Your task to perform on an android device: Open internet settings Image 0: 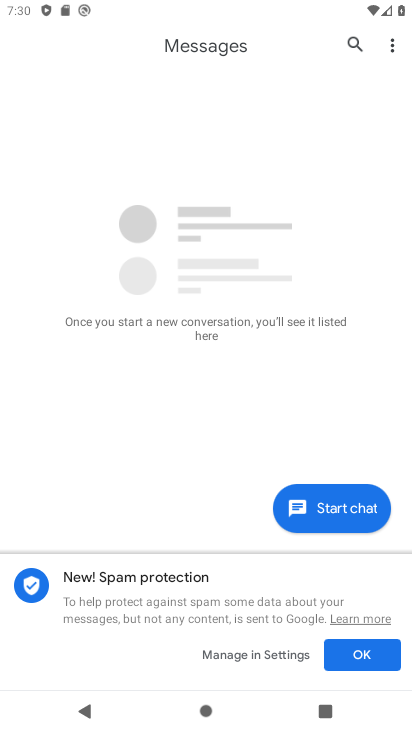
Step 0: press home button
Your task to perform on an android device: Open internet settings Image 1: 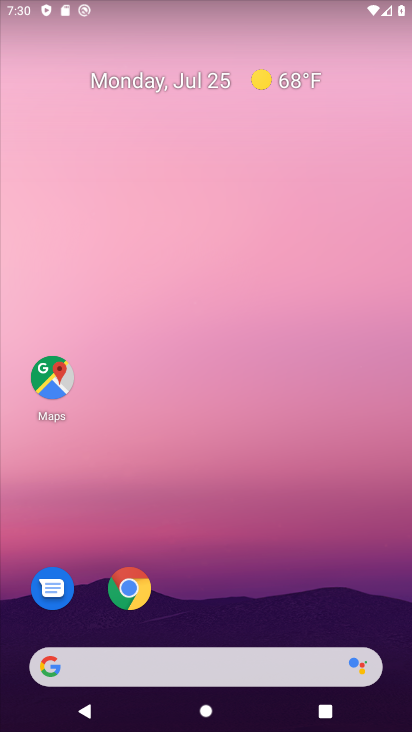
Step 1: drag from (356, 588) to (361, 96)
Your task to perform on an android device: Open internet settings Image 2: 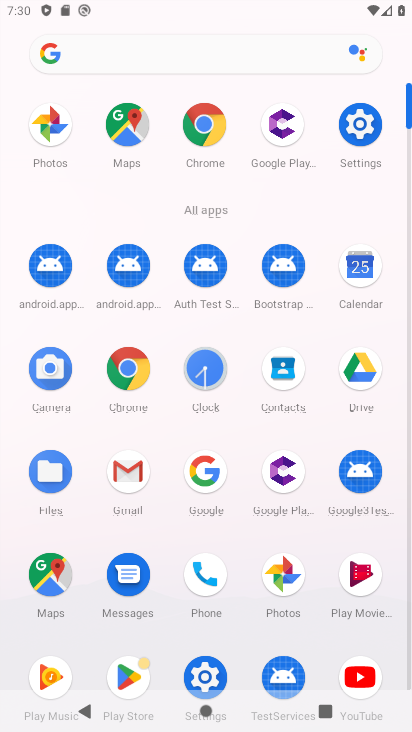
Step 2: click (358, 122)
Your task to perform on an android device: Open internet settings Image 3: 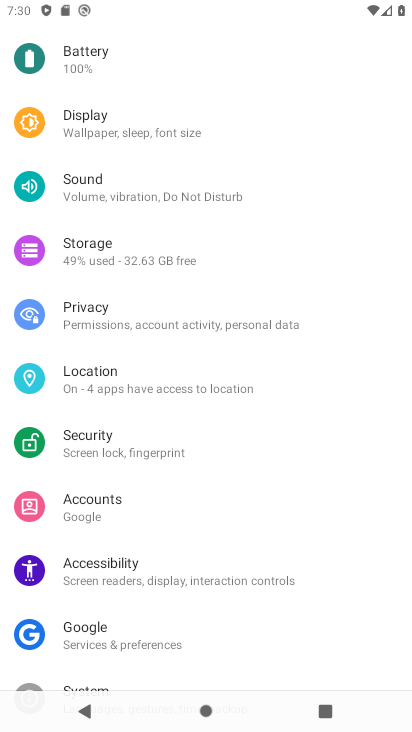
Step 3: drag from (341, 487) to (343, 418)
Your task to perform on an android device: Open internet settings Image 4: 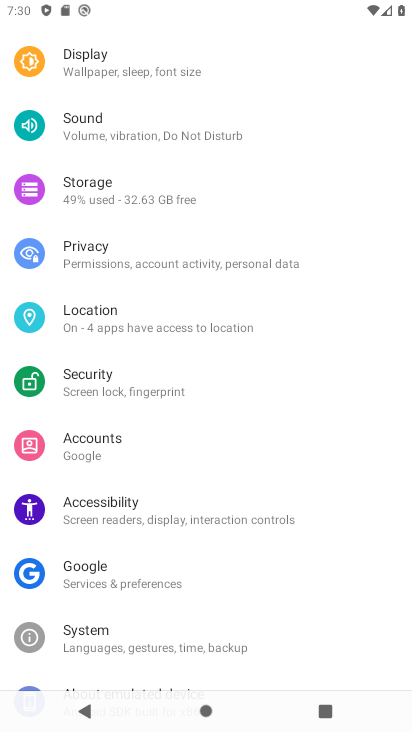
Step 4: drag from (328, 556) to (332, 456)
Your task to perform on an android device: Open internet settings Image 5: 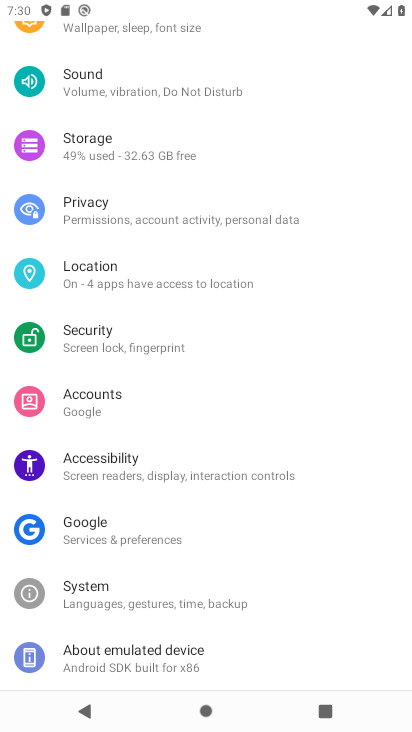
Step 5: drag from (345, 344) to (351, 423)
Your task to perform on an android device: Open internet settings Image 6: 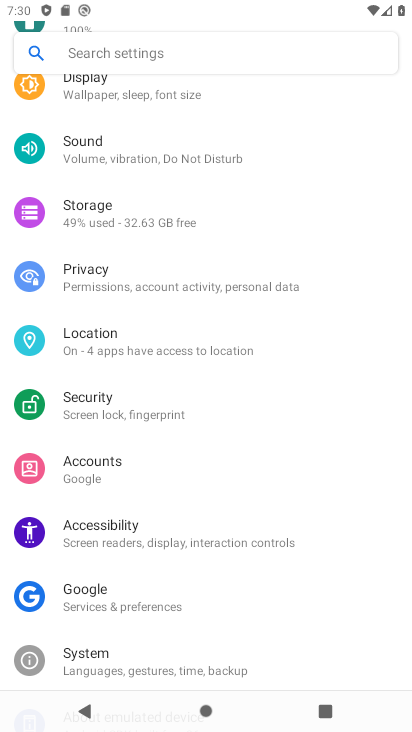
Step 6: drag from (342, 307) to (342, 406)
Your task to perform on an android device: Open internet settings Image 7: 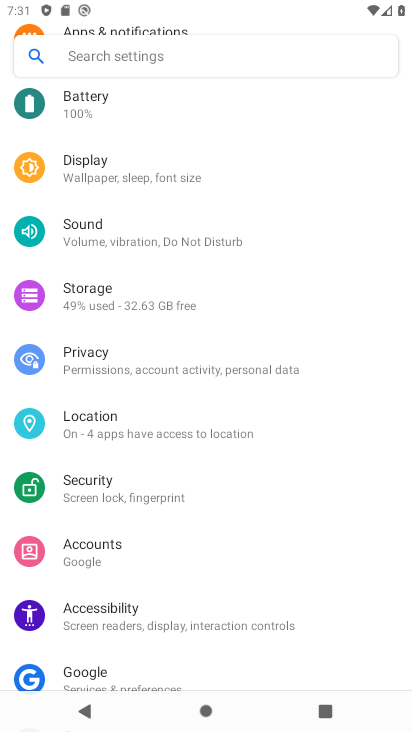
Step 7: drag from (347, 281) to (348, 389)
Your task to perform on an android device: Open internet settings Image 8: 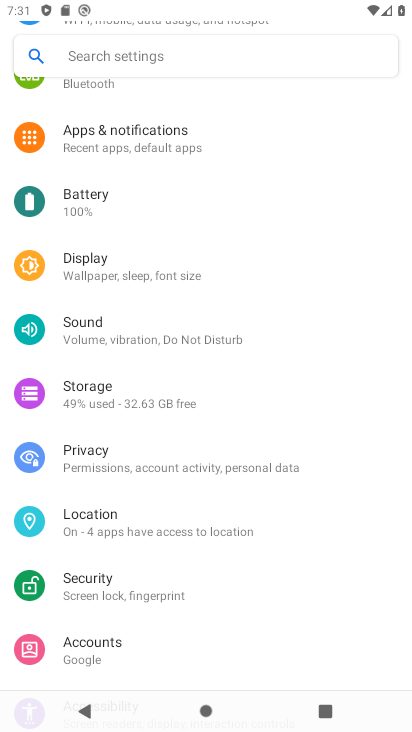
Step 8: drag from (352, 260) to (344, 360)
Your task to perform on an android device: Open internet settings Image 9: 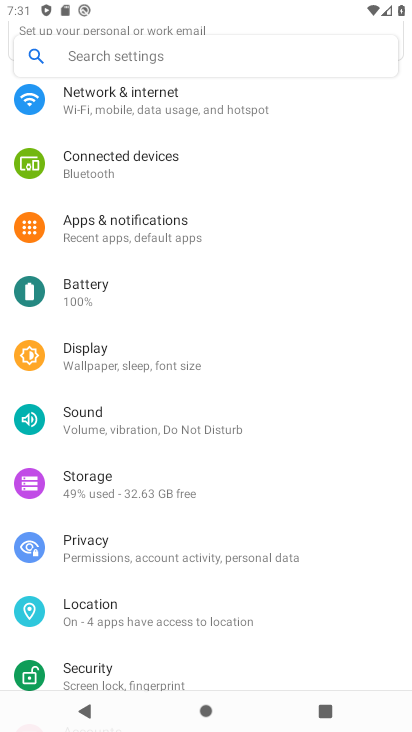
Step 9: drag from (335, 216) to (335, 313)
Your task to perform on an android device: Open internet settings Image 10: 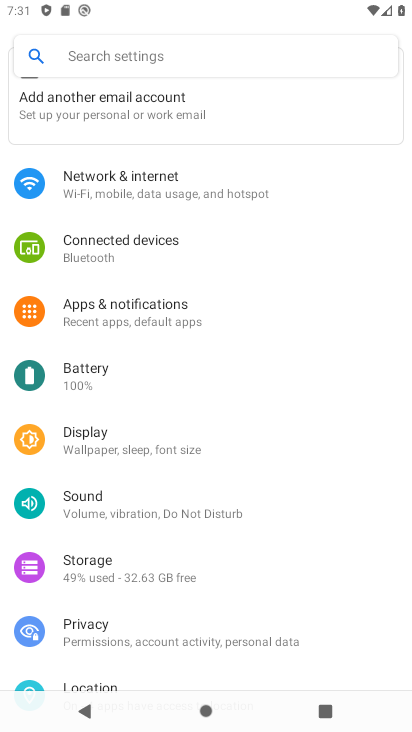
Step 10: drag from (329, 210) to (333, 397)
Your task to perform on an android device: Open internet settings Image 11: 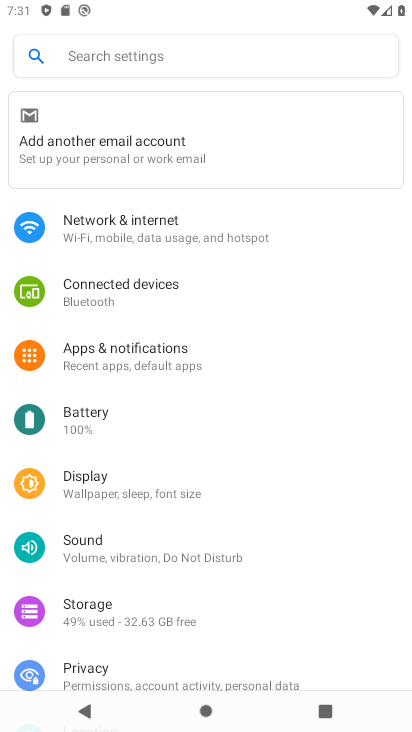
Step 11: click (258, 238)
Your task to perform on an android device: Open internet settings Image 12: 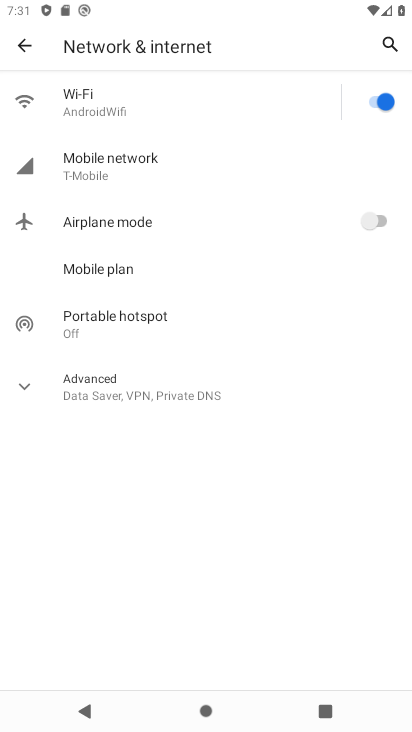
Step 12: task complete